Your task to perform on an android device: delete the emails in spam in the gmail app Image 0: 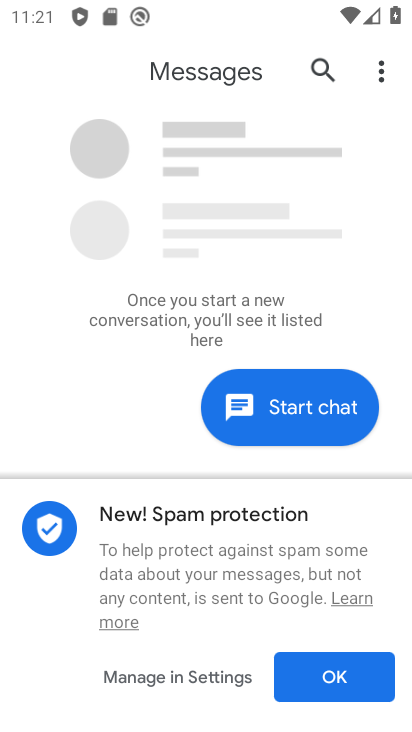
Step 0: press home button
Your task to perform on an android device: delete the emails in spam in the gmail app Image 1: 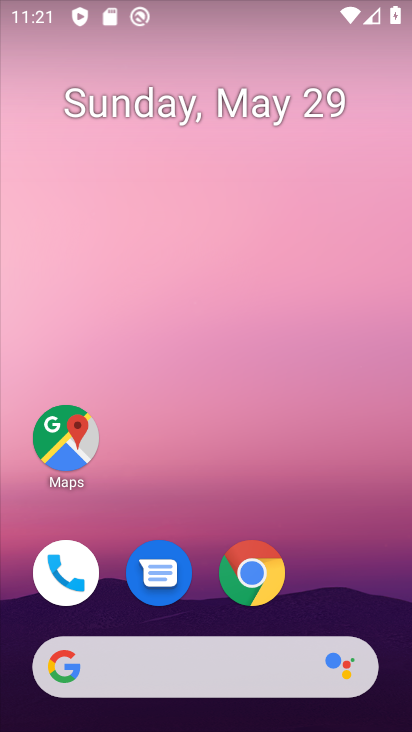
Step 1: drag from (342, 361) to (364, 135)
Your task to perform on an android device: delete the emails in spam in the gmail app Image 2: 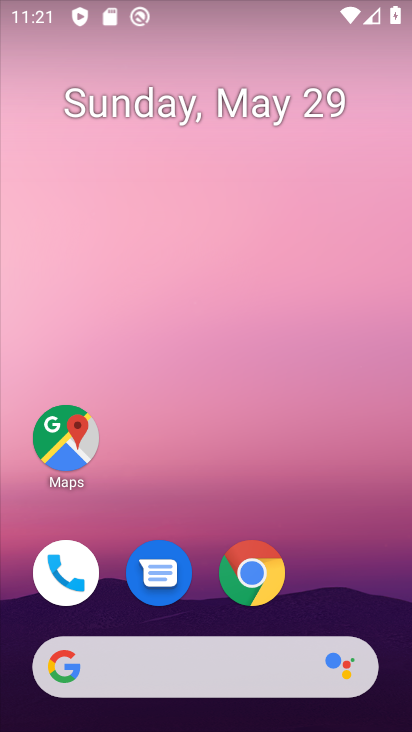
Step 2: drag from (337, 612) to (349, 98)
Your task to perform on an android device: delete the emails in spam in the gmail app Image 3: 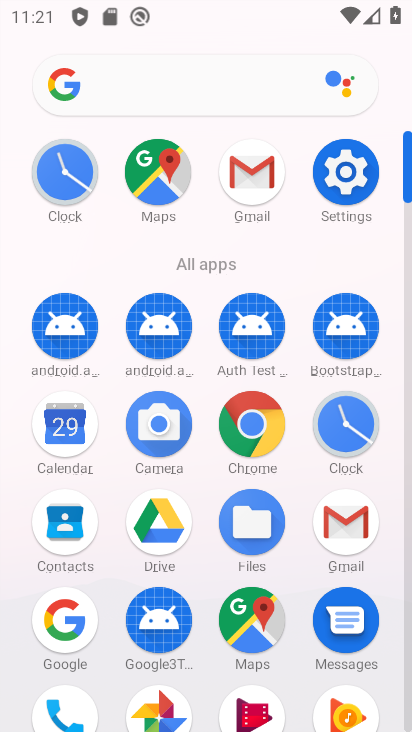
Step 3: click (249, 173)
Your task to perform on an android device: delete the emails in spam in the gmail app Image 4: 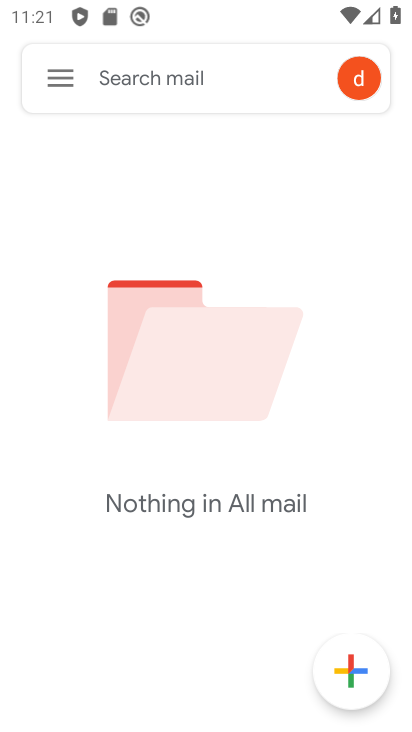
Step 4: click (60, 77)
Your task to perform on an android device: delete the emails in spam in the gmail app Image 5: 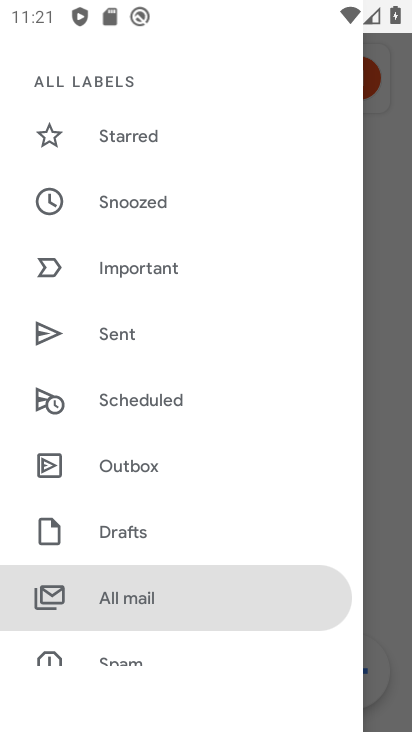
Step 5: click (133, 658)
Your task to perform on an android device: delete the emails in spam in the gmail app Image 6: 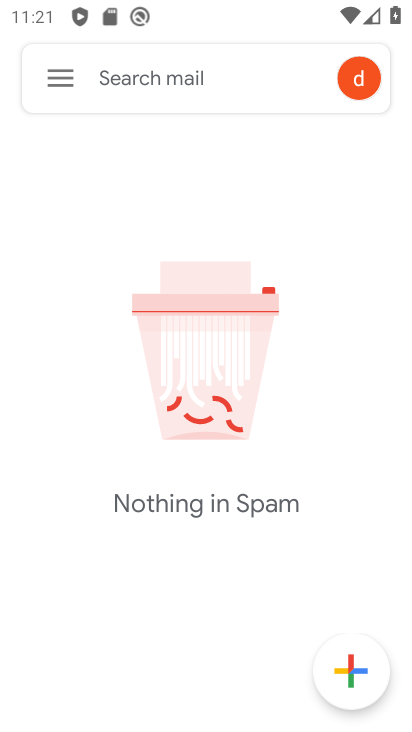
Step 6: task complete